Your task to perform on an android device: Go to calendar. Show me events next week Image 0: 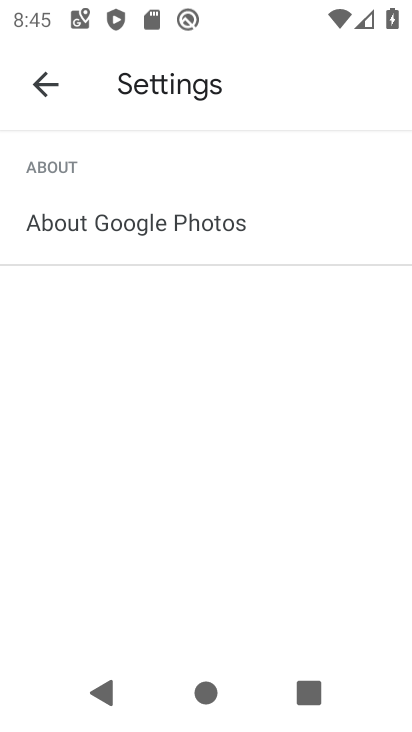
Step 0: press home button
Your task to perform on an android device: Go to calendar. Show me events next week Image 1: 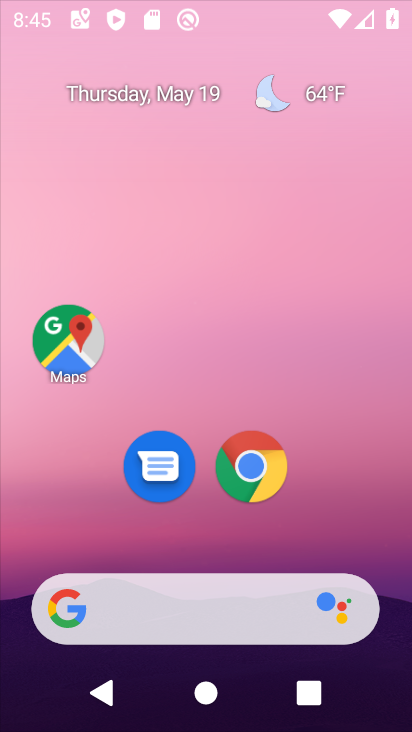
Step 1: drag from (384, 662) to (304, 96)
Your task to perform on an android device: Go to calendar. Show me events next week Image 2: 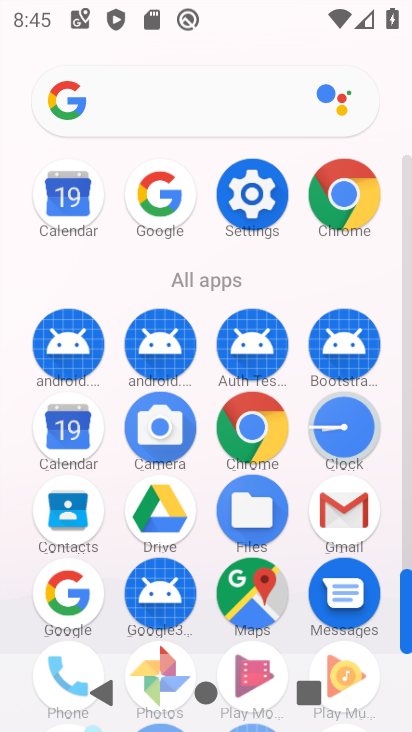
Step 2: click (68, 459)
Your task to perform on an android device: Go to calendar. Show me events next week Image 3: 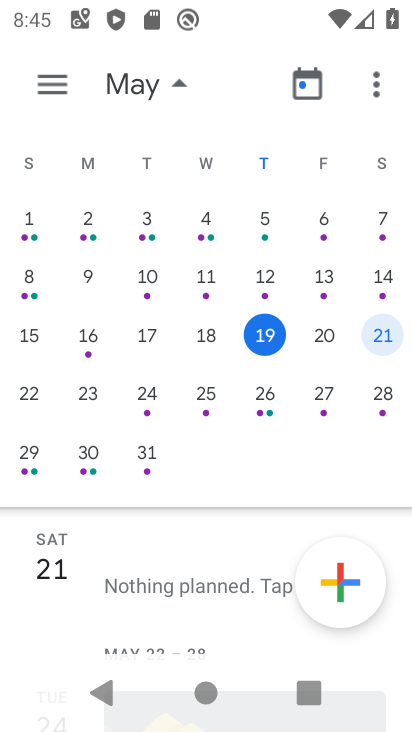
Step 3: click (48, 75)
Your task to perform on an android device: Go to calendar. Show me events next week Image 4: 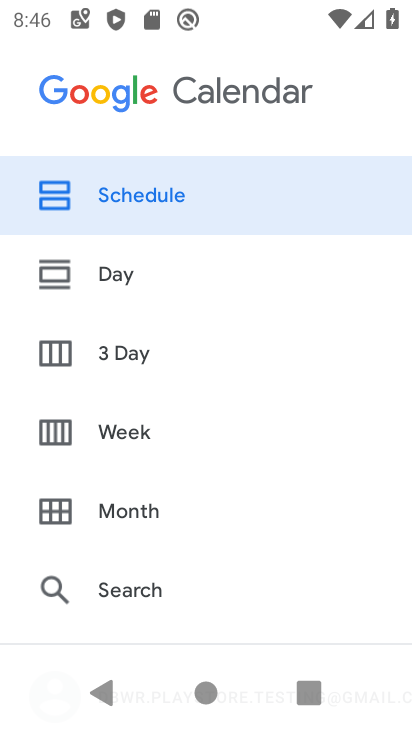
Step 4: click (127, 180)
Your task to perform on an android device: Go to calendar. Show me events next week Image 5: 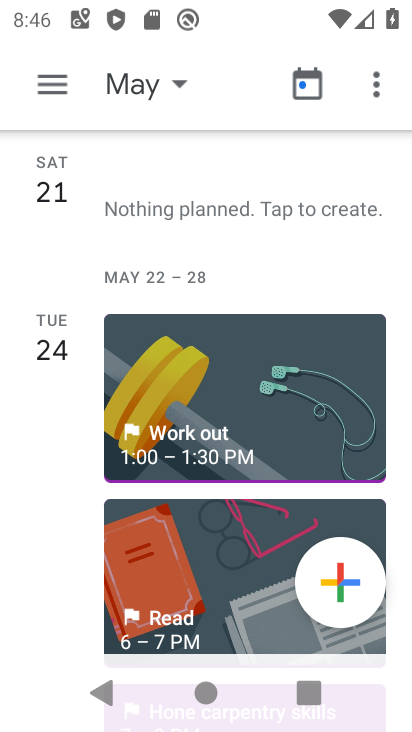
Step 5: task complete